Your task to perform on an android device: Open my contact list Image 0: 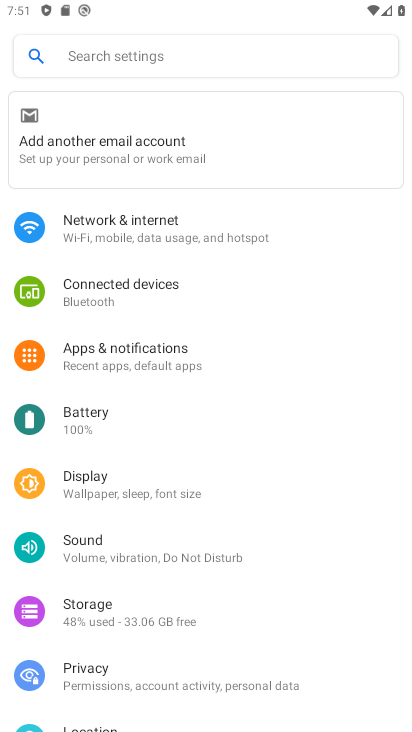
Step 0: press home button
Your task to perform on an android device: Open my contact list Image 1: 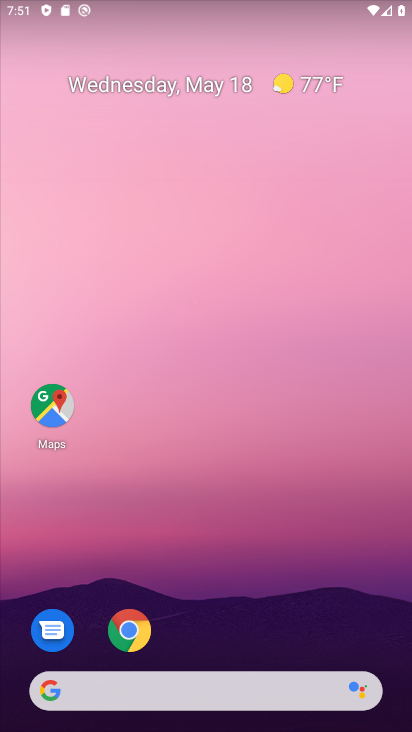
Step 1: drag from (188, 616) to (243, 272)
Your task to perform on an android device: Open my contact list Image 2: 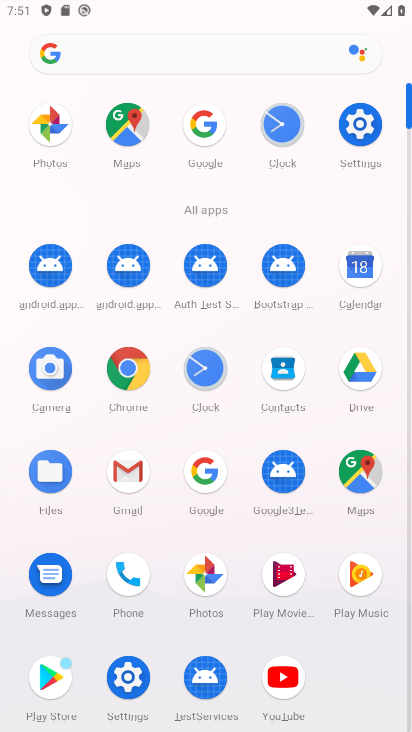
Step 2: click (291, 366)
Your task to perform on an android device: Open my contact list Image 3: 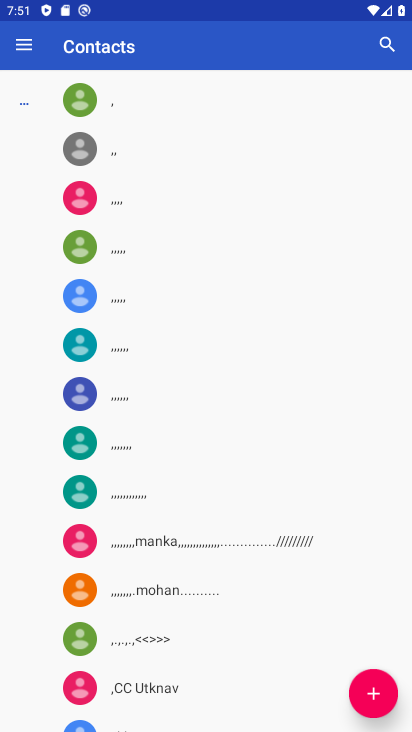
Step 3: task complete